Your task to perform on an android device: turn notification dots on Image 0: 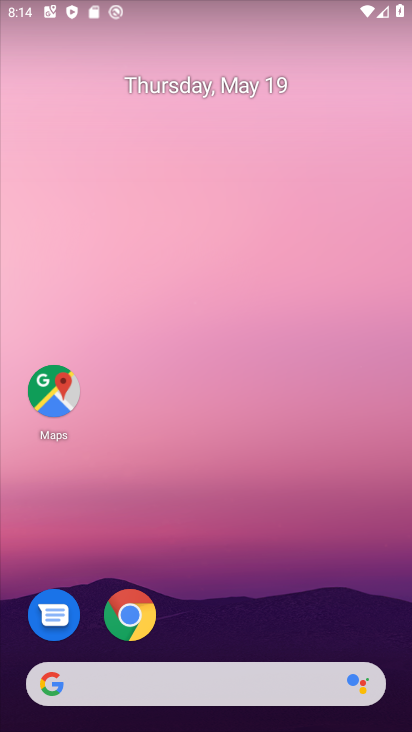
Step 0: drag from (187, 655) to (206, 106)
Your task to perform on an android device: turn notification dots on Image 1: 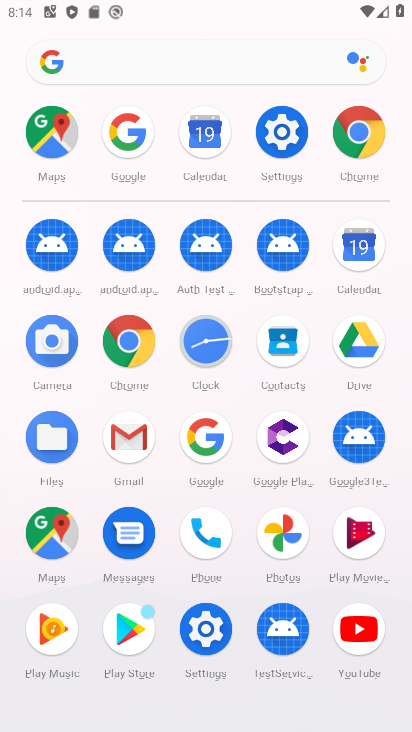
Step 1: click (277, 132)
Your task to perform on an android device: turn notification dots on Image 2: 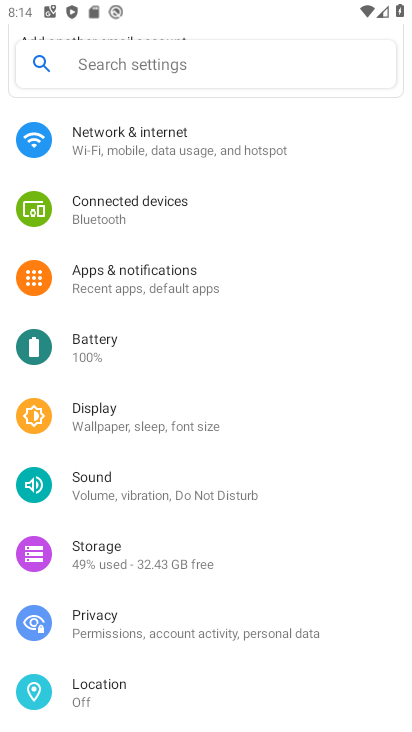
Step 2: click (215, 577)
Your task to perform on an android device: turn notification dots on Image 3: 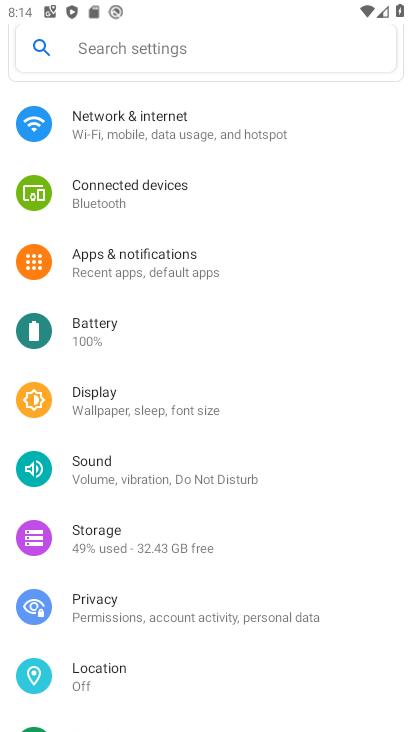
Step 3: click (150, 252)
Your task to perform on an android device: turn notification dots on Image 4: 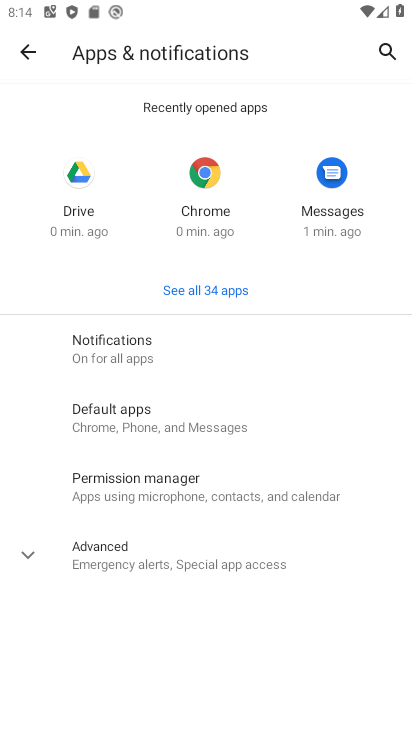
Step 4: click (147, 355)
Your task to perform on an android device: turn notification dots on Image 5: 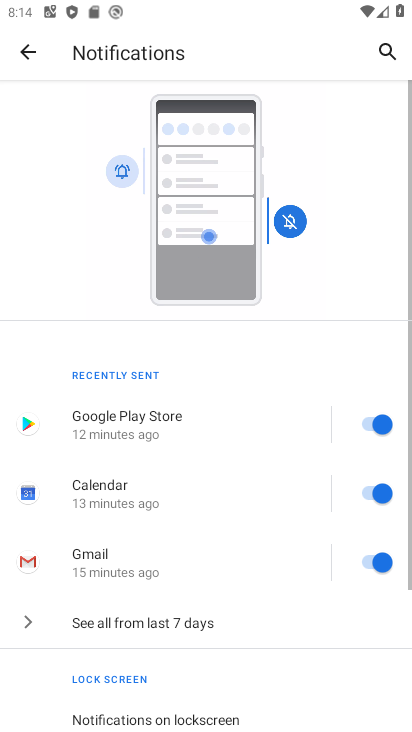
Step 5: drag from (227, 562) to (224, 43)
Your task to perform on an android device: turn notification dots on Image 6: 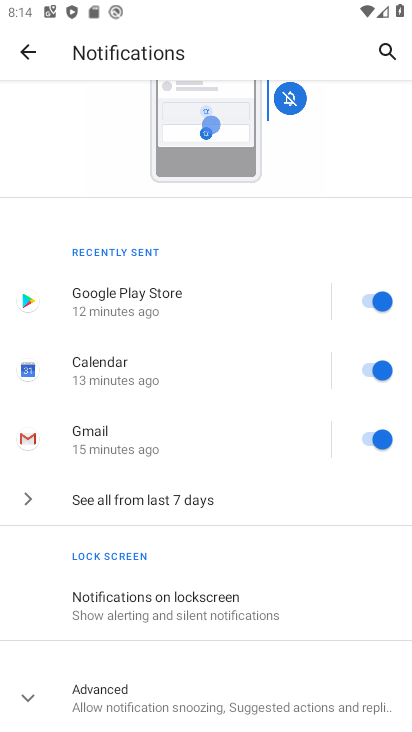
Step 6: click (103, 679)
Your task to perform on an android device: turn notification dots on Image 7: 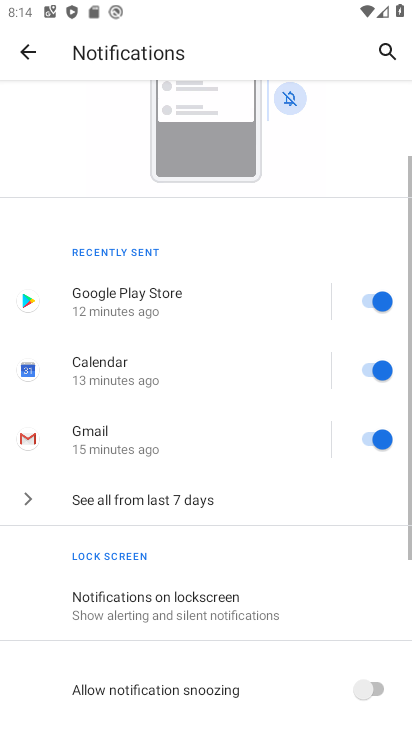
Step 7: task complete